Your task to perform on an android device: Show me the alarms in the clock app Image 0: 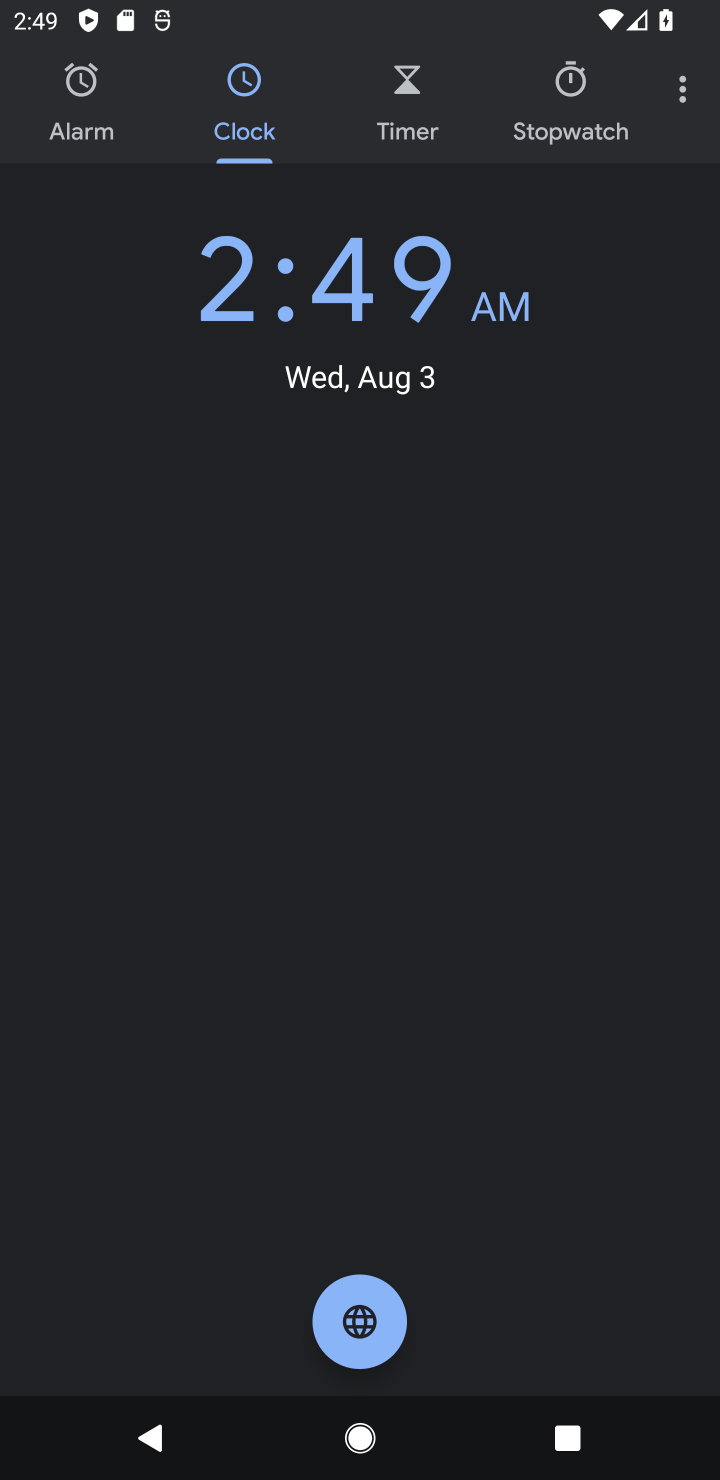
Step 0: press home button
Your task to perform on an android device: Show me the alarms in the clock app Image 1: 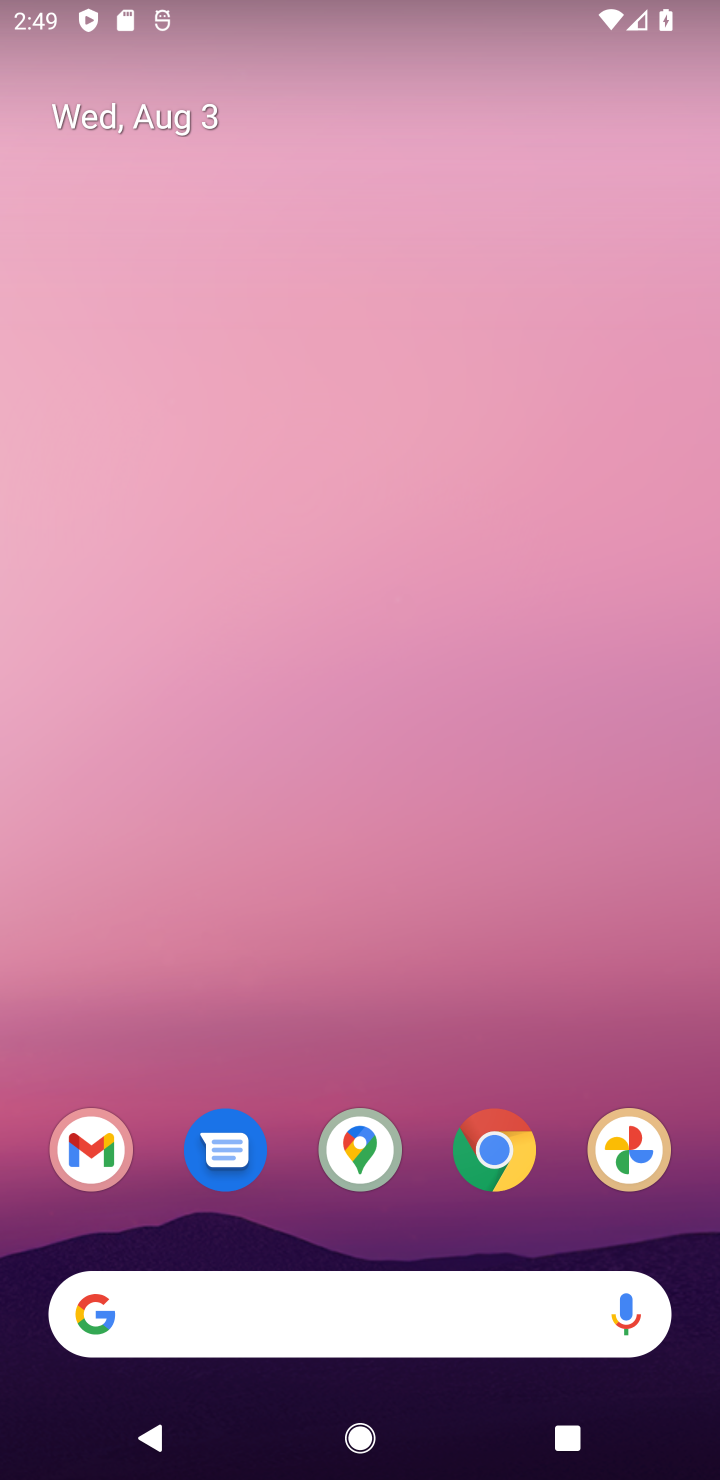
Step 1: drag from (293, 1176) to (231, 300)
Your task to perform on an android device: Show me the alarms in the clock app Image 2: 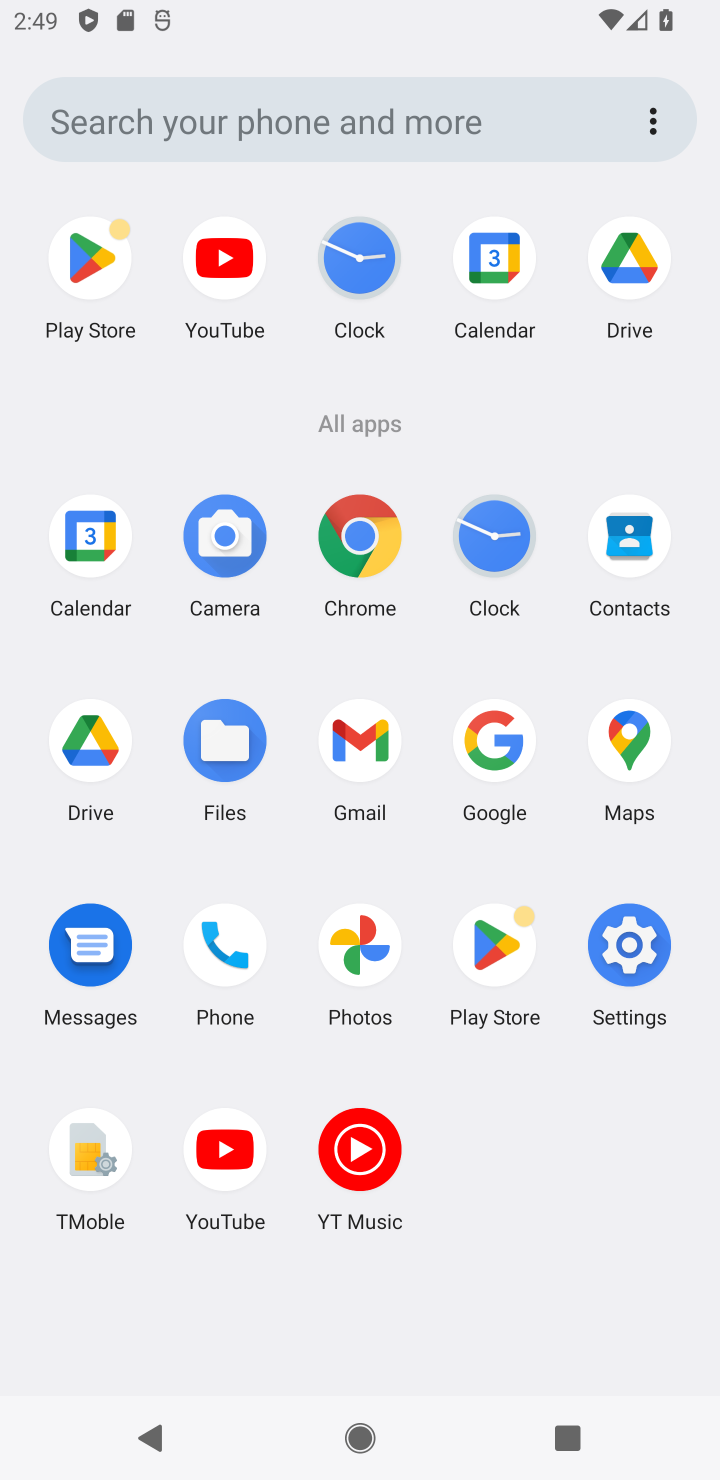
Step 2: click (497, 575)
Your task to perform on an android device: Show me the alarms in the clock app Image 3: 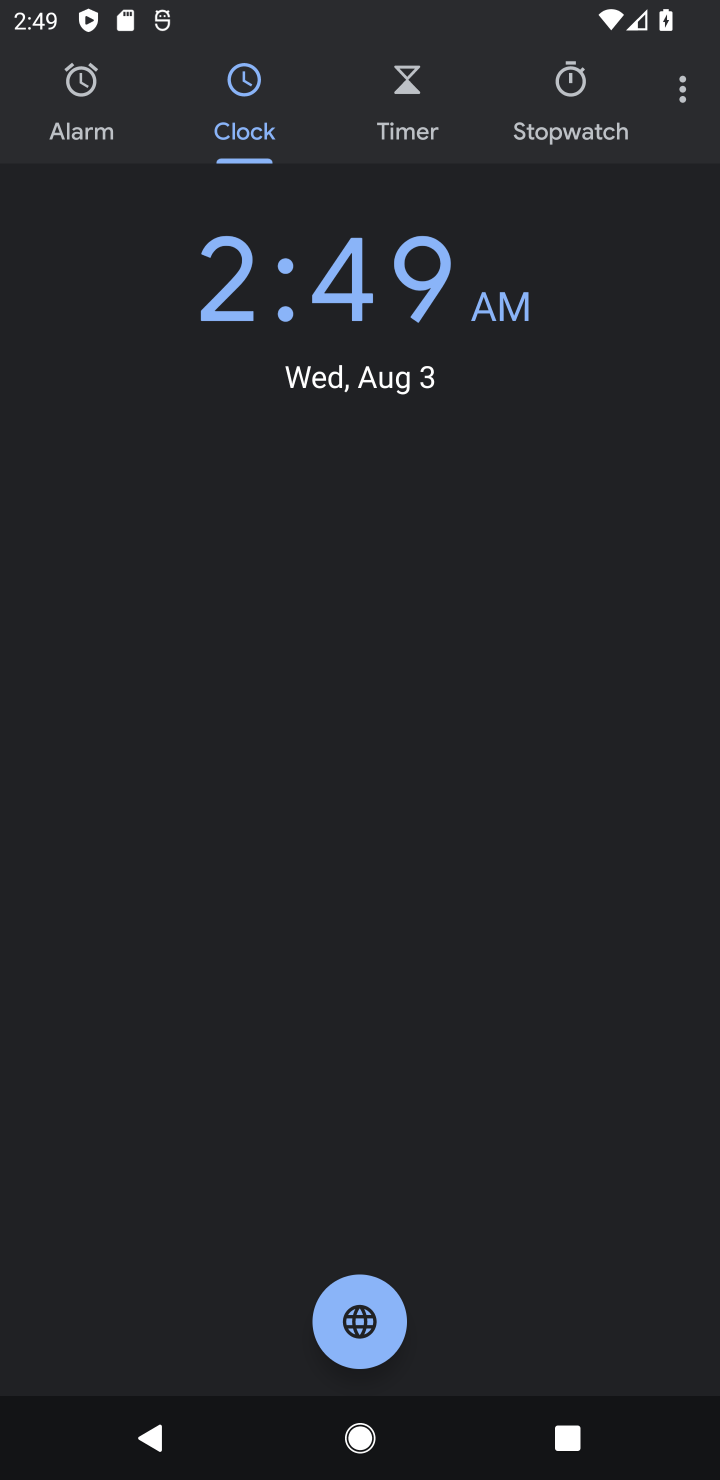
Step 3: click (83, 102)
Your task to perform on an android device: Show me the alarms in the clock app Image 4: 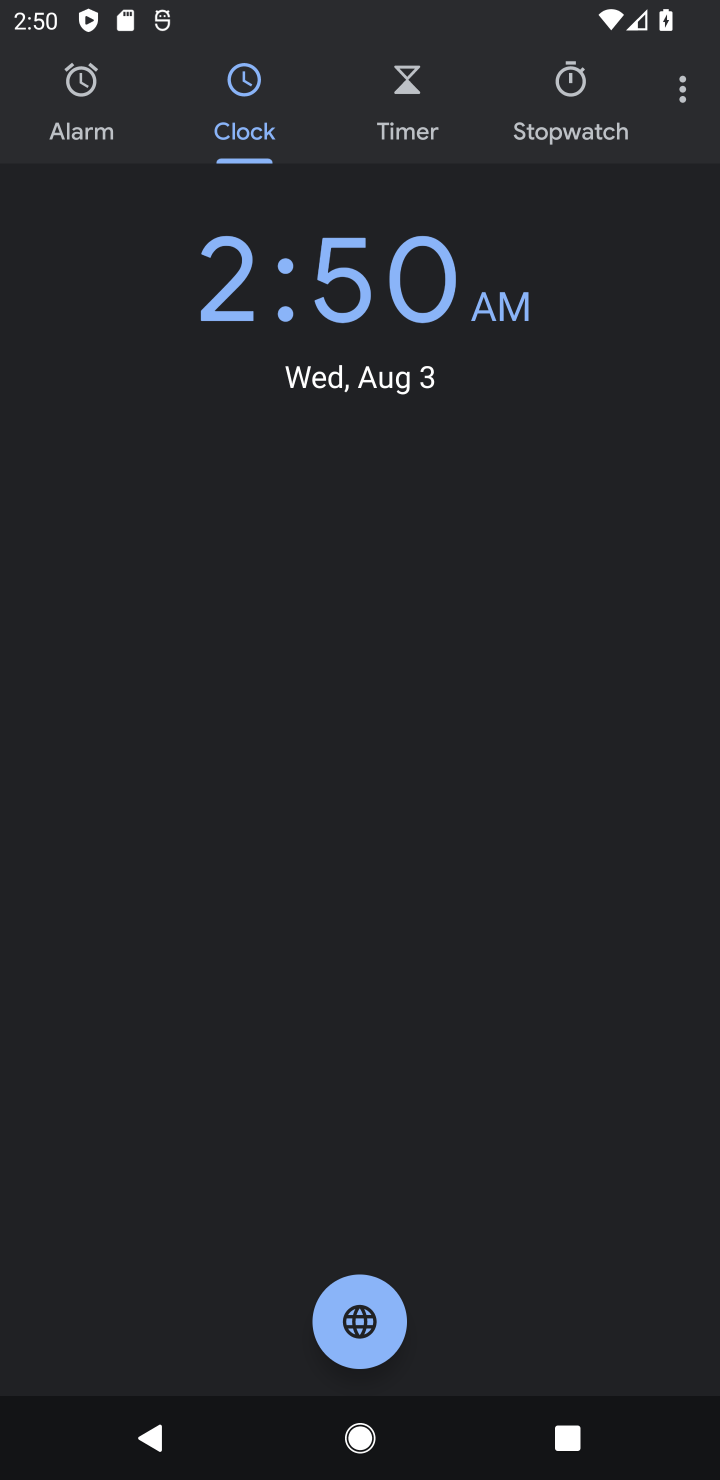
Step 4: click (80, 140)
Your task to perform on an android device: Show me the alarms in the clock app Image 5: 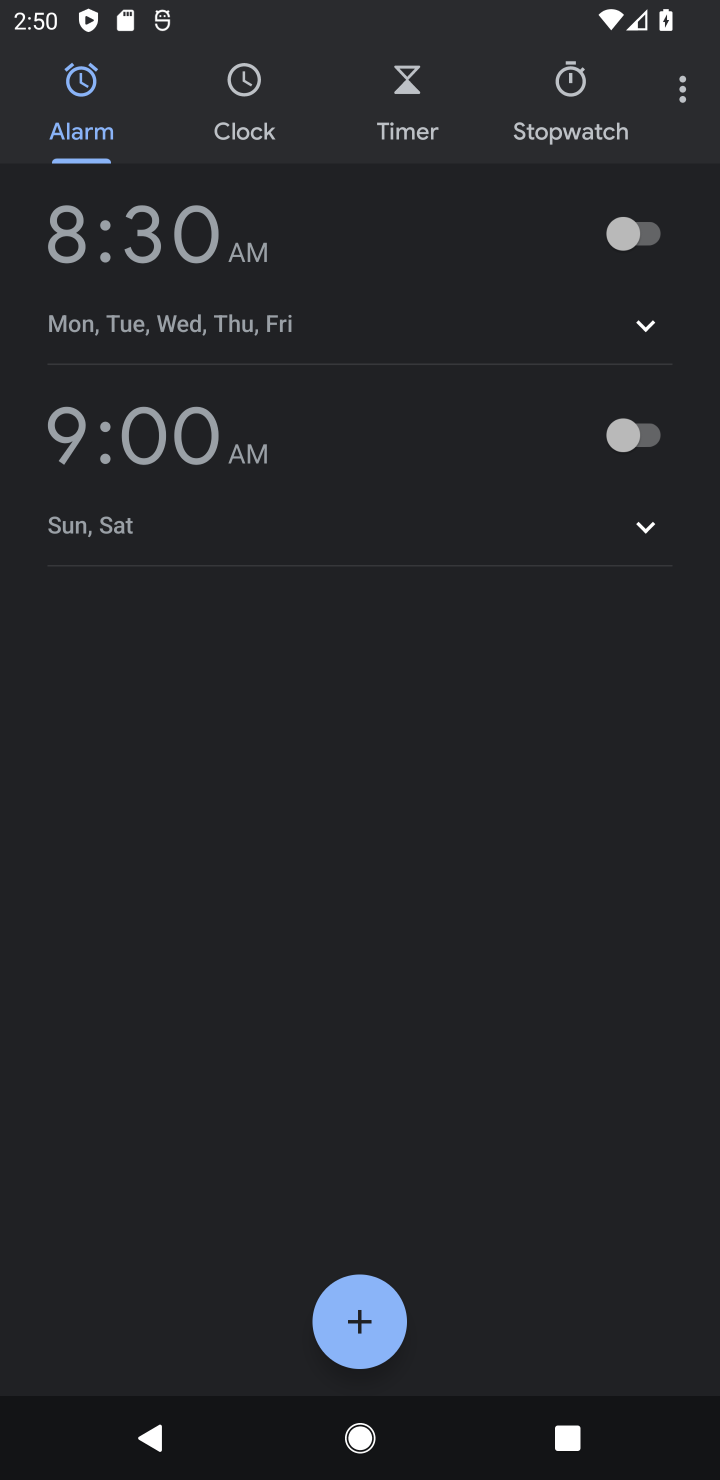
Step 5: task complete